Your task to perform on an android device: Go to Google maps Image 0: 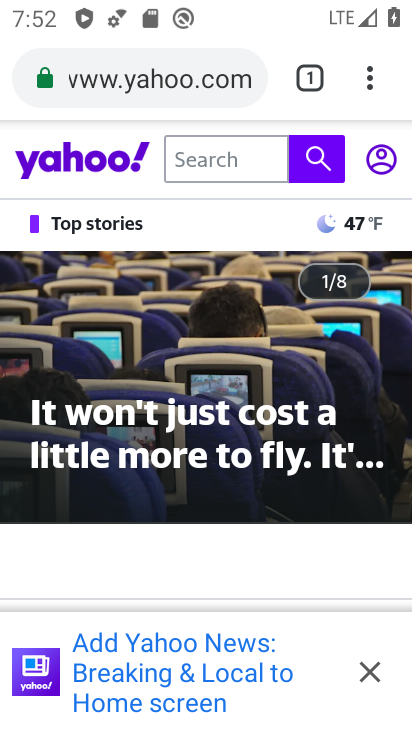
Step 0: press back button
Your task to perform on an android device: Go to Google maps Image 1: 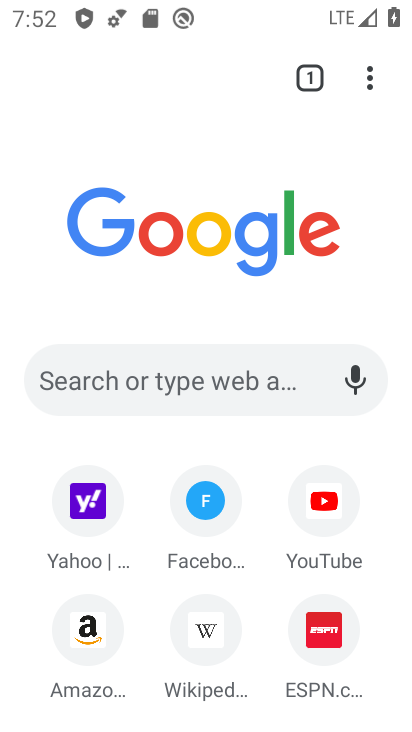
Step 1: press back button
Your task to perform on an android device: Go to Google maps Image 2: 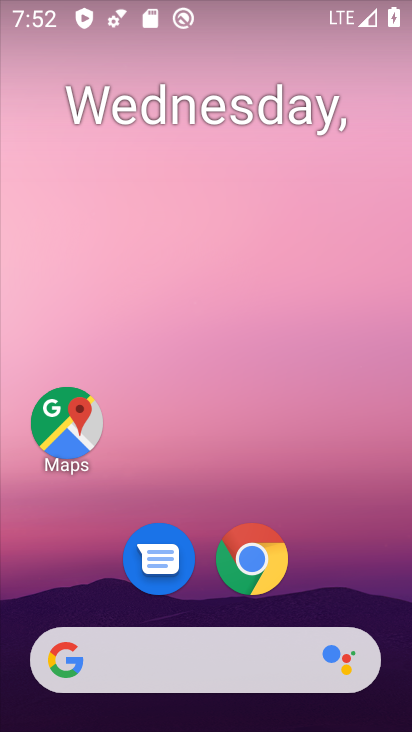
Step 2: click (79, 421)
Your task to perform on an android device: Go to Google maps Image 3: 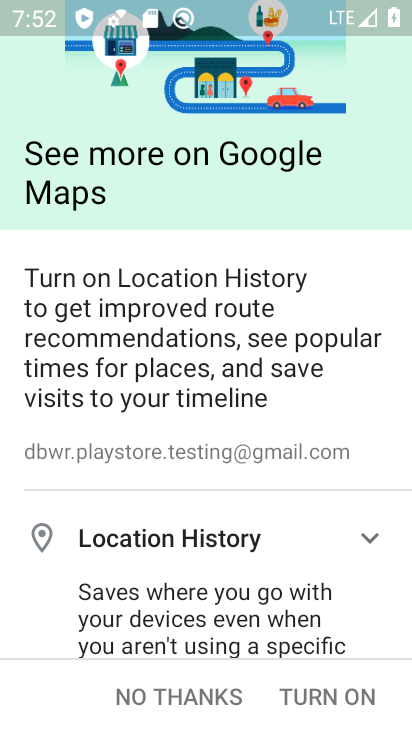
Step 3: click (337, 695)
Your task to perform on an android device: Go to Google maps Image 4: 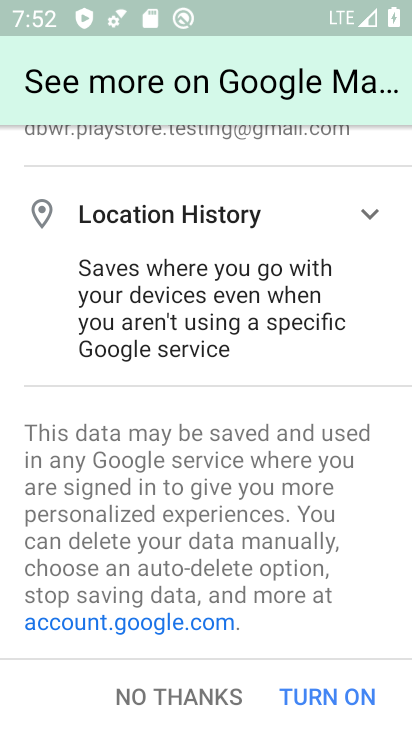
Step 4: click (337, 695)
Your task to perform on an android device: Go to Google maps Image 5: 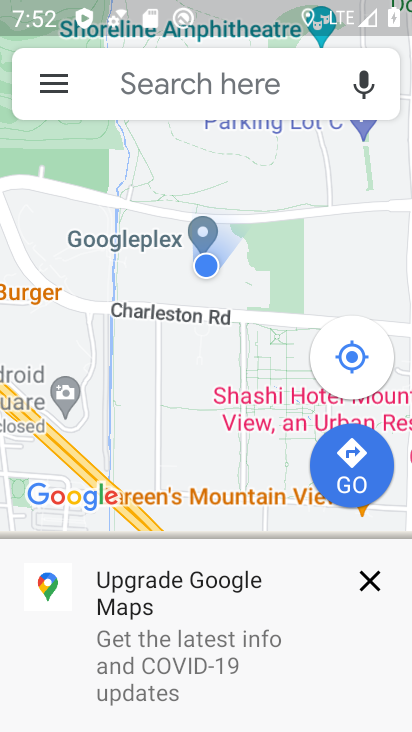
Step 5: task complete